Your task to perform on an android device: Play the last video I watched on Youtube Image 0: 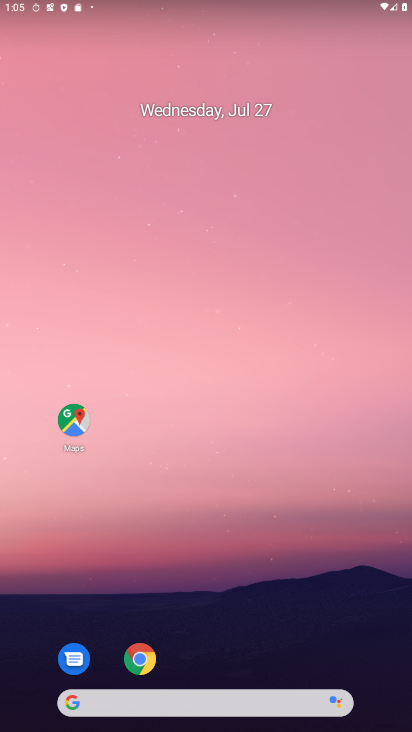
Step 0: press home button
Your task to perform on an android device: Play the last video I watched on Youtube Image 1: 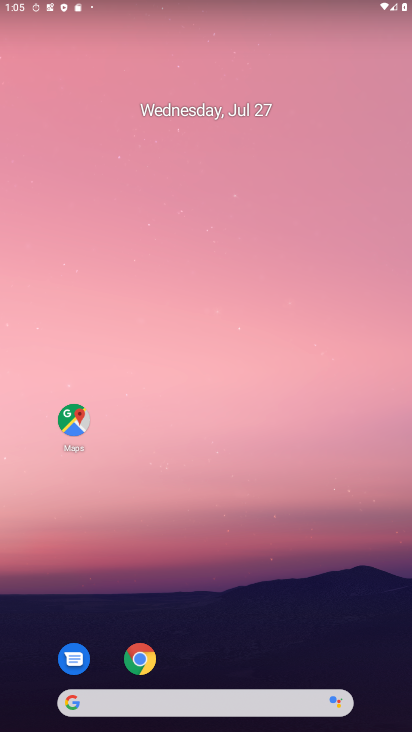
Step 1: drag from (211, 575) to (126, 100)
Your task to perform on an android device: Play the last video I watched on Youtube Image 2: 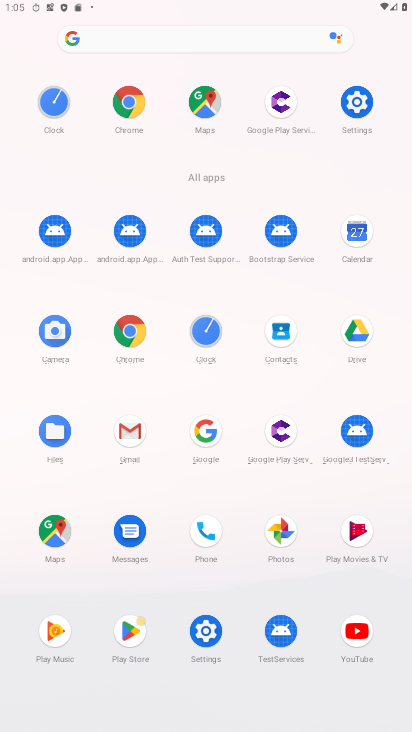
Step 2: click (359, 624)
Your task to perform on an android device: Play the last video I watched on Youtube Image 3: 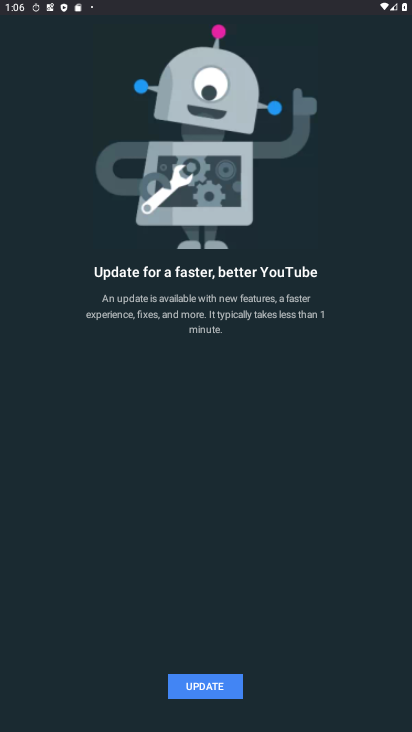
Step 3: click (182, 690)
Your task to perform on an android device: Play the last video I watched on Youtube Image 4: 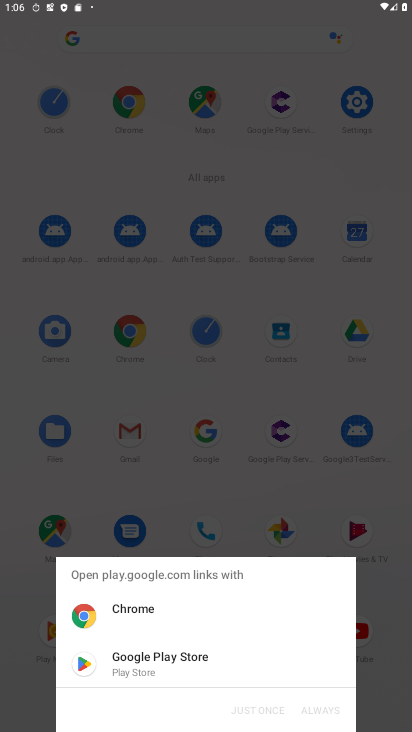
Step 4: click (117, 680)
Your task to perform on an android device: Play the last video I watched on Youtube Image 5: 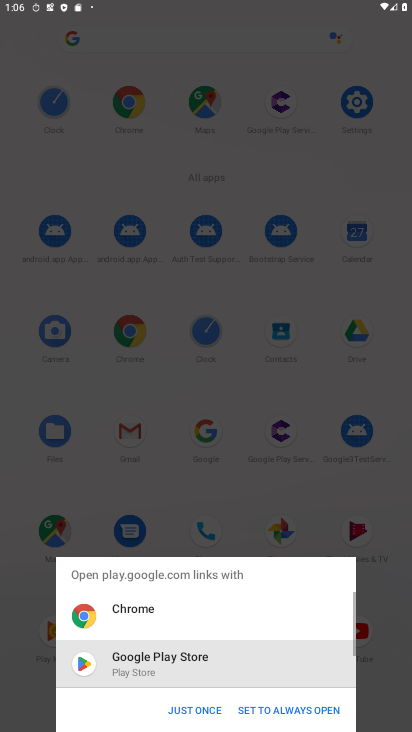
Step 5: click (179, 718)
Your task to perform on an android device: Play the last video I watched on Youtube Image 6: 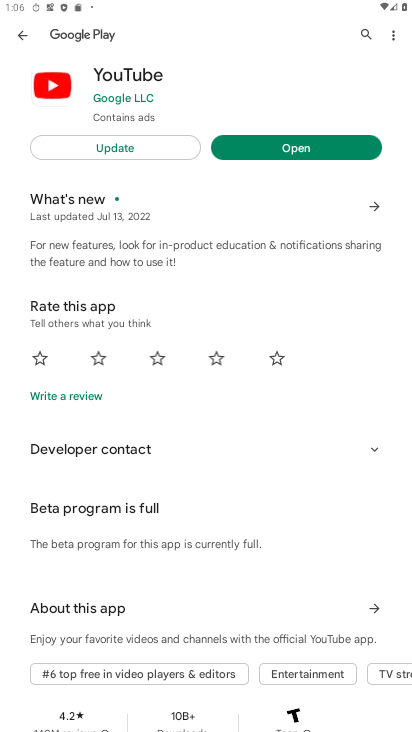
Step 6: click (134, 154)
Your task to perform on an android device: Play the last video I watched on Youtube Image 7: 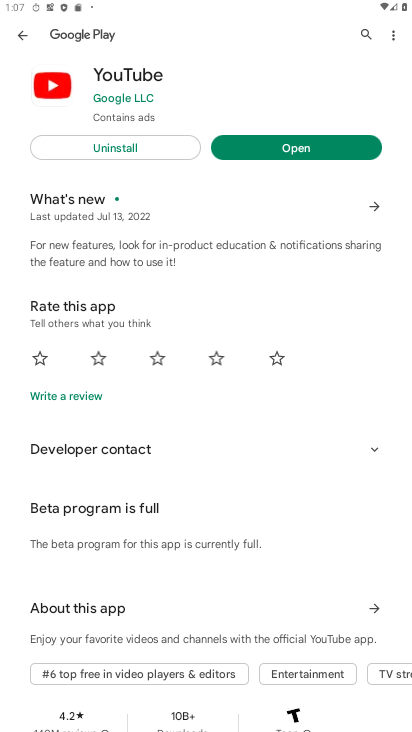
Step 7: click (244, 144)
Your task to perform on an android device: Play the last video I watched on Youtube Image 8: 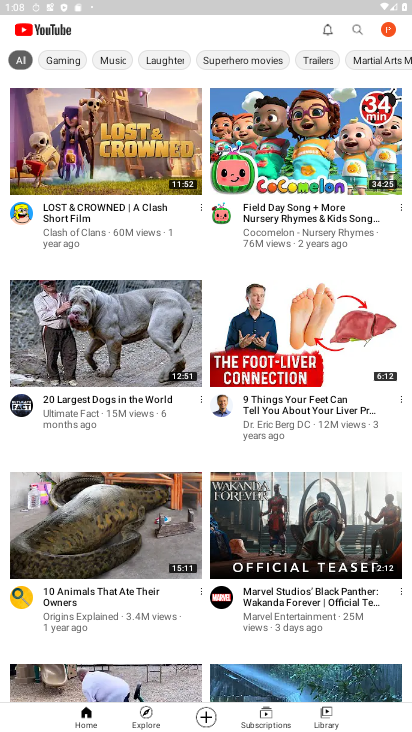
Step 8: click (330, 705)
Your task to perform on an android device: Play the last video I watched on Youtube Image 9: 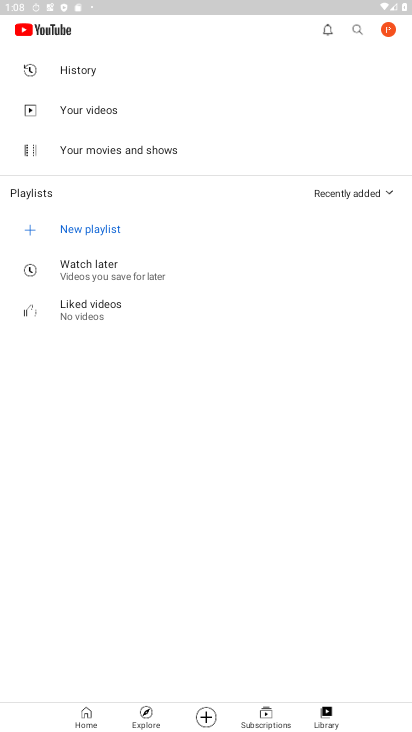
Step 9: click (88, 76)
Your task to perform on an android device: Play the last video I watched on Youtube Image 10: 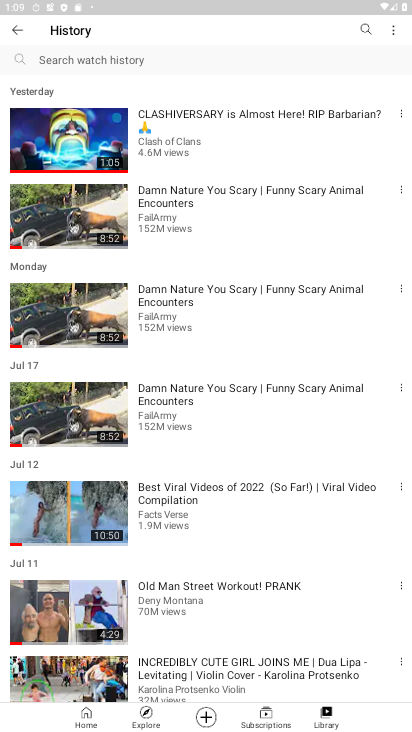
Step 10: click (38, 133)
Your task to perform on an android device: Play the last video I watched on Youtube Image 11: 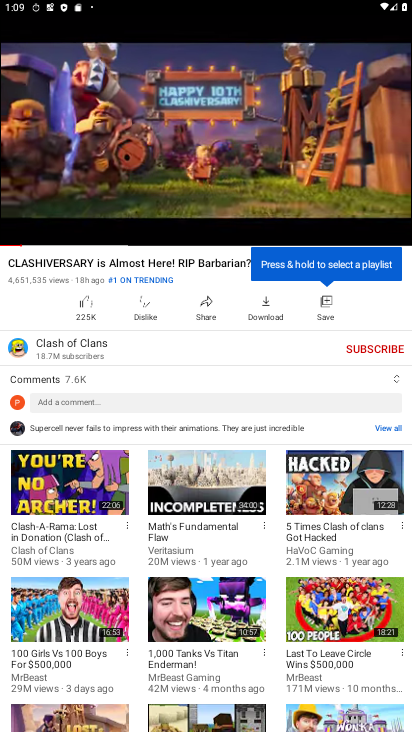
Step 11: click (220, 182)
Your task to perform on an android device: Play the last video I watched on Youtube Image 12: 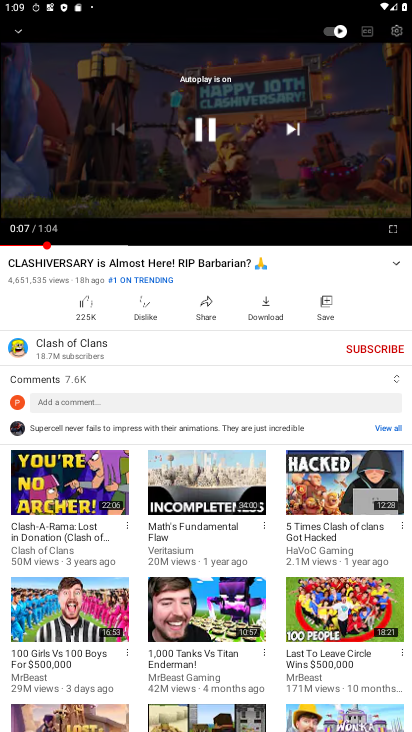
Step 12: click (211, 130)
Your task to perform on an android device: Play the last video I watched on Youtube Image 13: 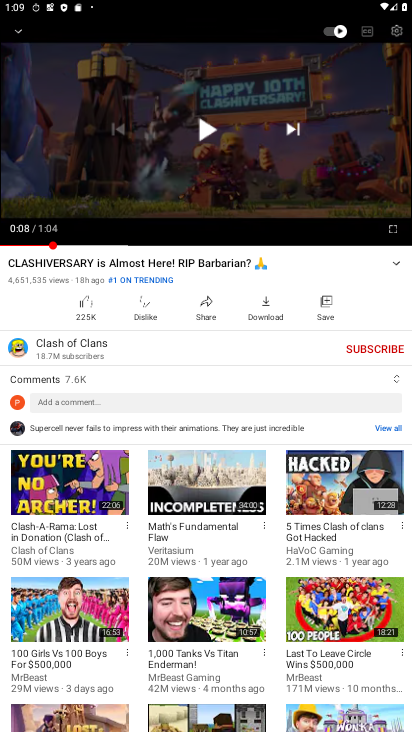
Step 13: click (211, 130)
Your task to perform on an android device: Play the last video I watched on Youtube Image 14: 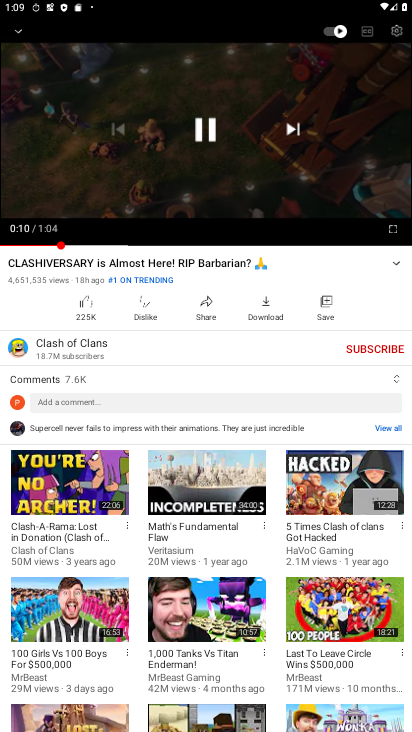
Step 14: click (232, 152)
Your task to perform on an android device: Play the last video I watched on Youtube Image 15: 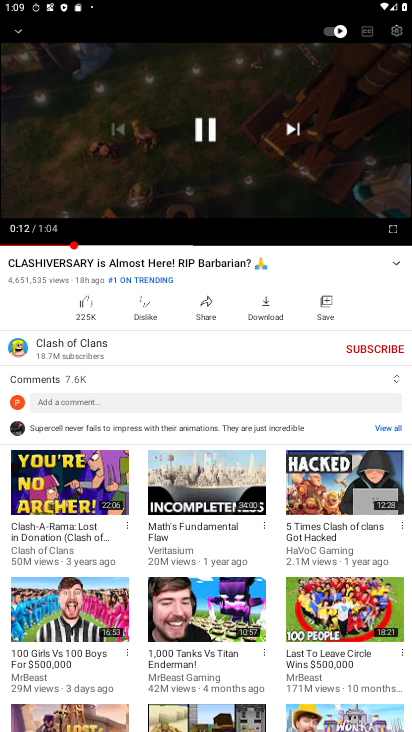
Step 15: task complete